Your task to perform on an android device: Turn on the flashlight Image 0: 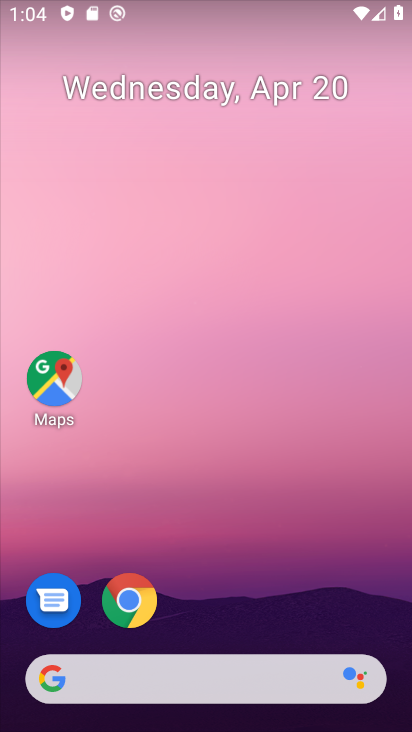
Step 0: drag from (233, 20) to (333, 575)
Your task to perform on an android device: Turn on the flashlight Image 1: 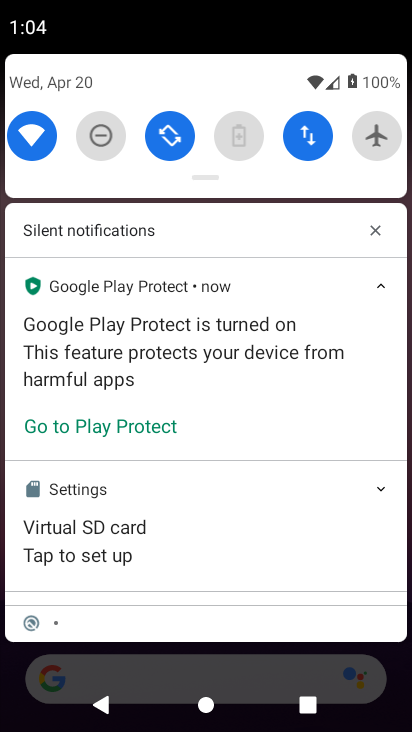
Step 1: drag from (199, 176) to (215, 487)
Your task to perform on an android device: Turn on the flashlight Image 2: 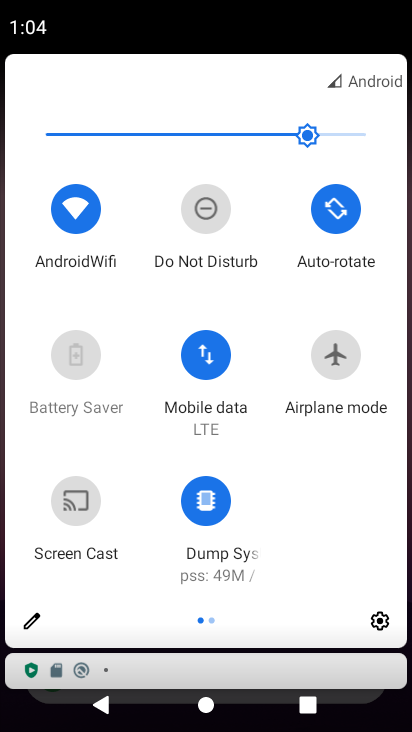
Step 2: click (29, 621)
Your task to perform on an android device: Turn on the flashlight Image 3: 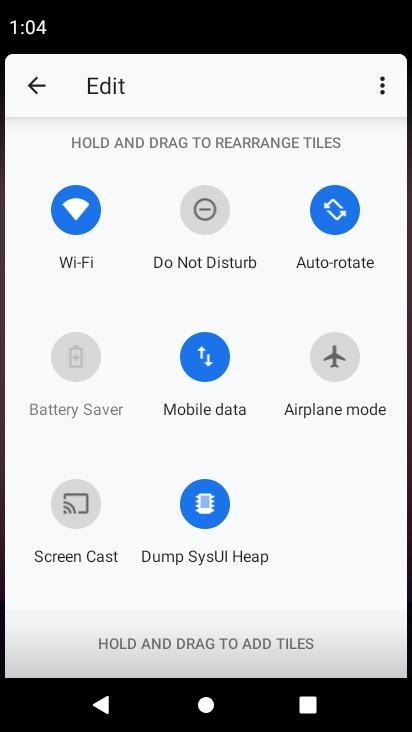
Step 3: task complete